Your task to perform on an android device: Is it going to rain tomorrow? Image 0: 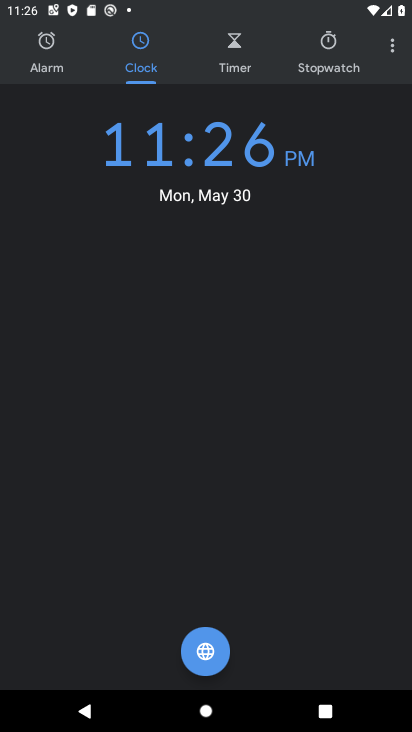
Step 0: press home button
Your task to perform on an android device: Is it going to rain tomorrow? Image 1: 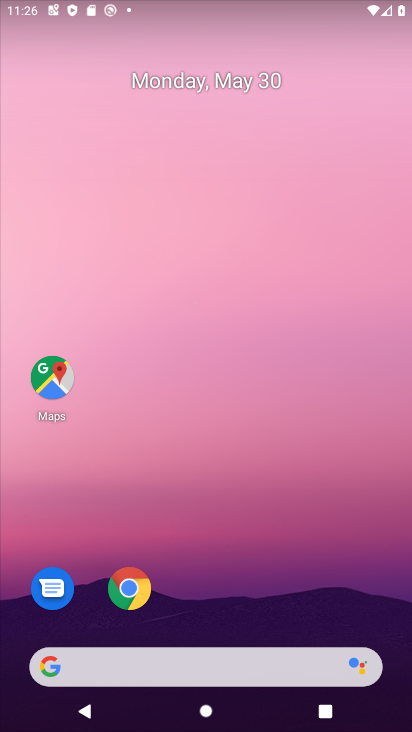
Step 1: drag from (81, 244) to (401, 245)
Your task to perform on an android device: Is it going to rain tomorrow? Image 2: 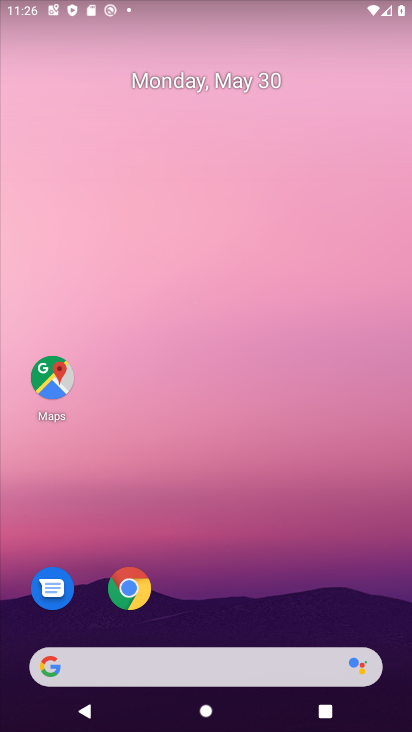
Step 2: drag from (21, 460) to (405, 452)
Your task to perform on an android device: Is it going to rain tomorrow? Image 3: 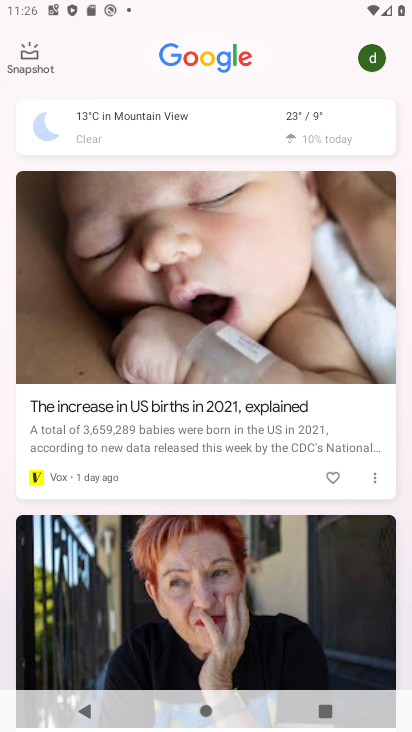
Step 3: click (270, 114)
Your task to perform on an android device: Is it going to rain tomorrow? Image 4: 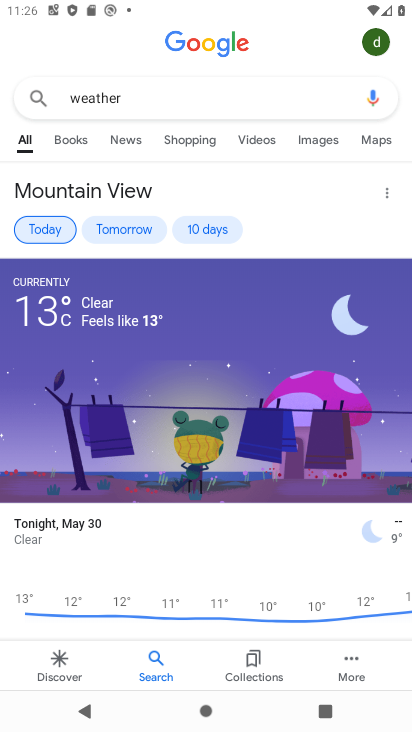
Step 4: click (134, 225)
Your task to perform on an android device: Is it going to rain tomorrow? Image 5: 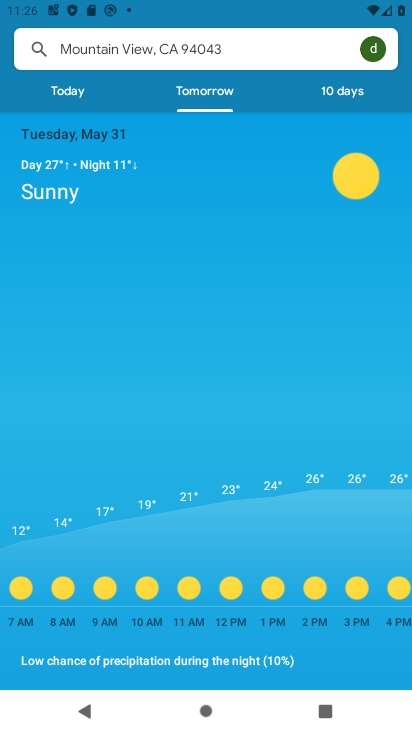
Step 5: click (119, 226)
Your task to perform on an android device: Is it going to rain tomorrow? Image 6: 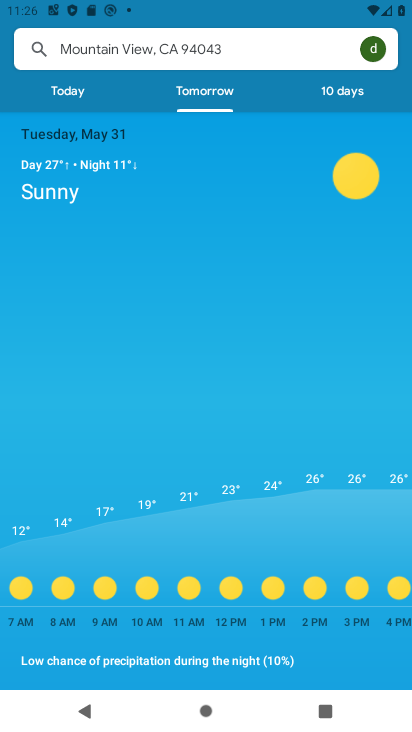
Step 6: task complete